Your task to perform on an android device: Go to Reddit.com Image 0: 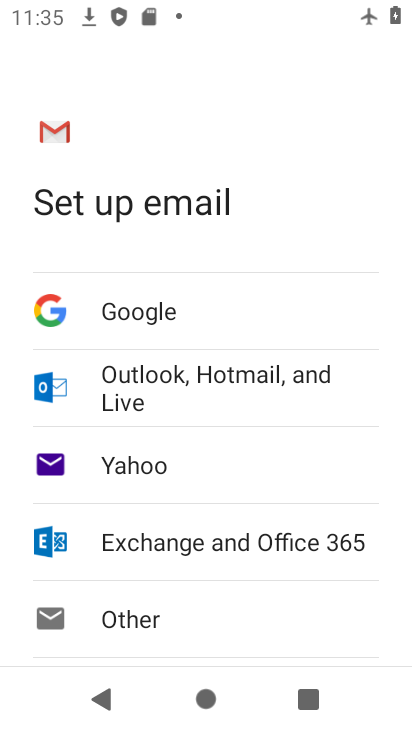
Step 0: press home button
Your task to perform on an android device: Go to Reddit.com Image 1: 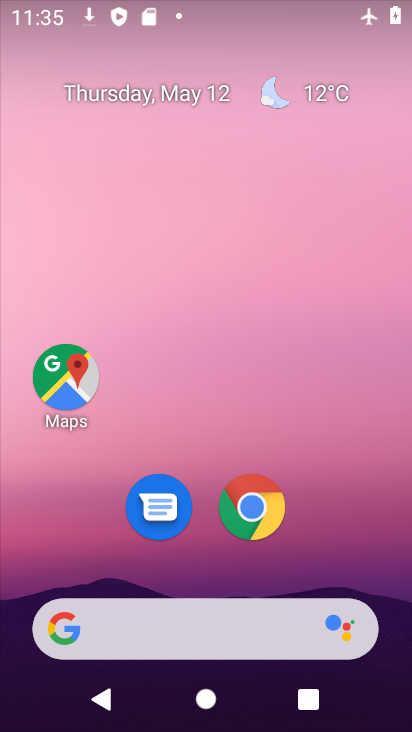
Step 1: drag from (313, 505) to (323, 86)
Your task to perform on an android device: Go to Reddit.com Image 2: 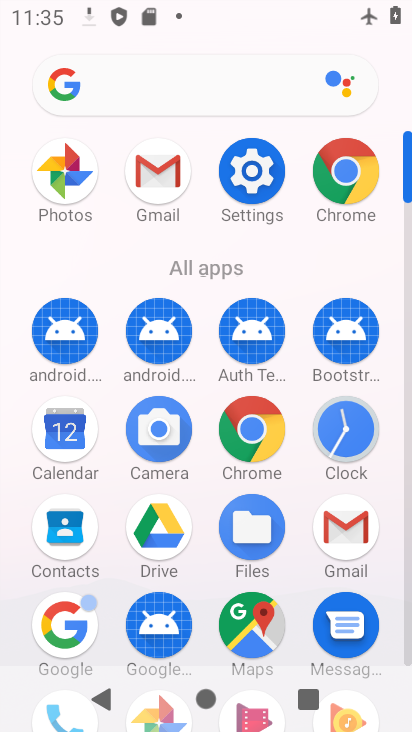
Step 2: drag from (202, 580) to (209, 510)
Your task to perform on an android device: Go to Reddit.com Image 3: 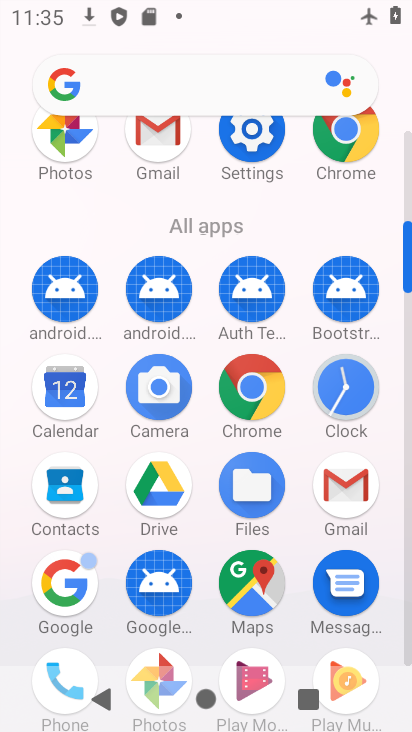
Step 3: click (264, 411)
Your task to perform on an android device: Go to Reddit.com Image 4: 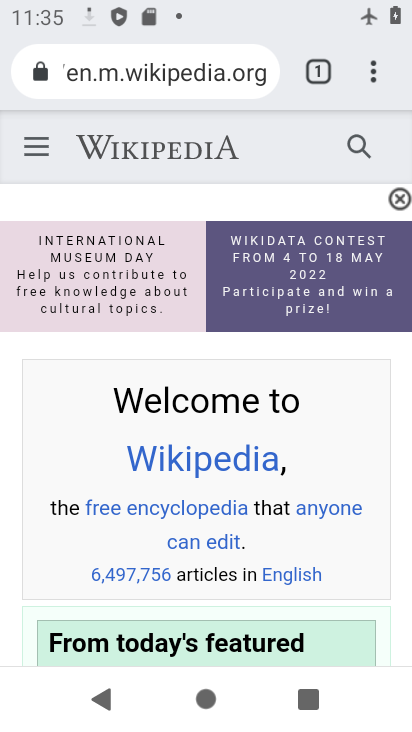
Step 4: click (199, 69)
Your task to perform on an android device: Go to Reddit.com Image 5: 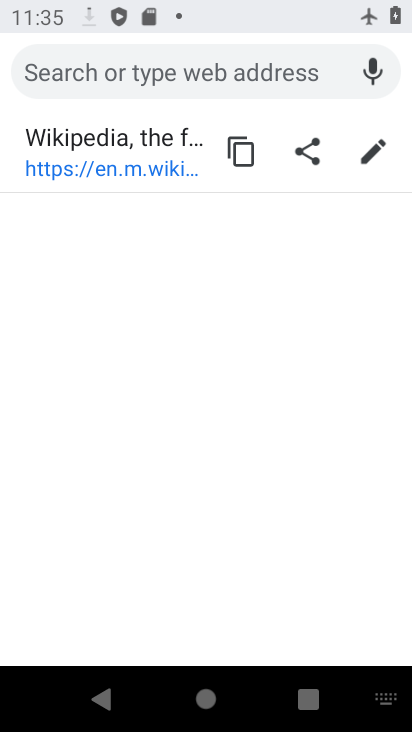
Step 5: type "Reddit.com"
Your task to perform on an android device: Go to Reddit.com Image 6: 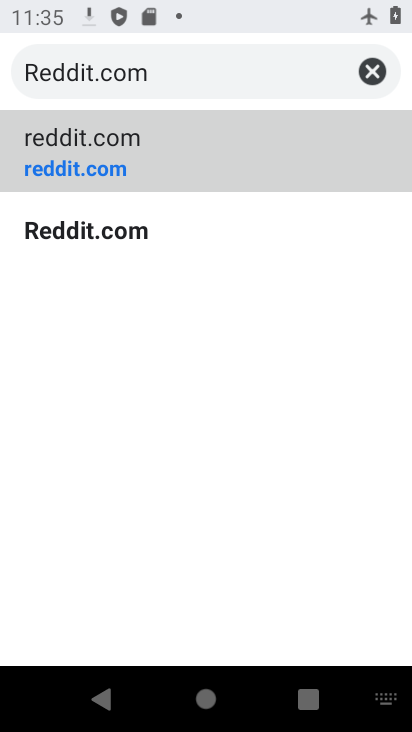
Step 6: click (153, 154)
Your task to perform on an android device: Go to Reddit.com Image 7: 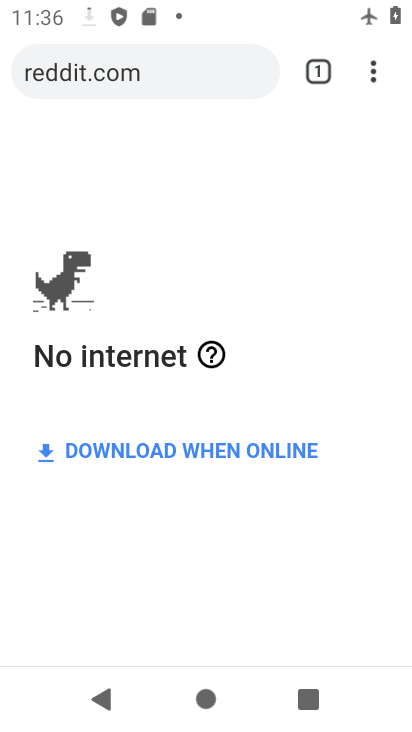
Step 7: task complete